Your task to perform on an android device: Open display settings Image 0: 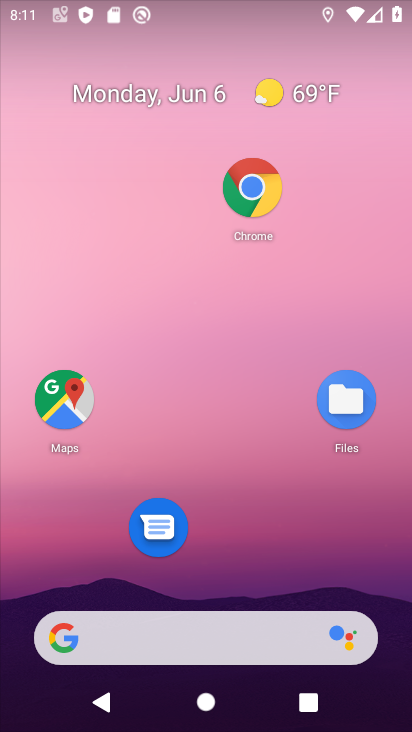
Step 0: drag from (228, 558) to (234, 84)
Your task to perform on an android device: Open display settings Image 1: 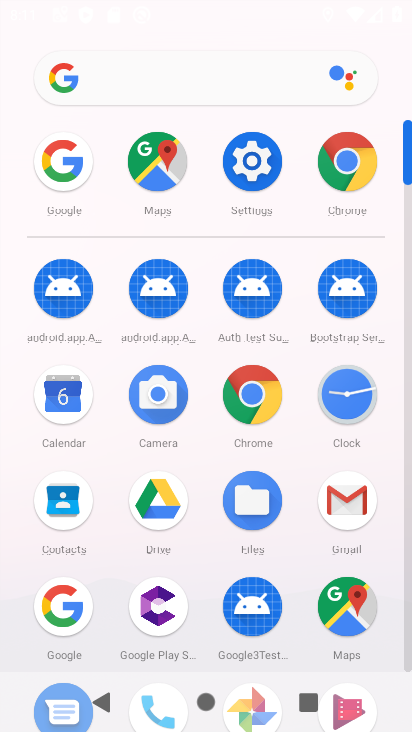
Step 1: click (247, 173)
Your task to perform on an android device: Open display settings Image 2: 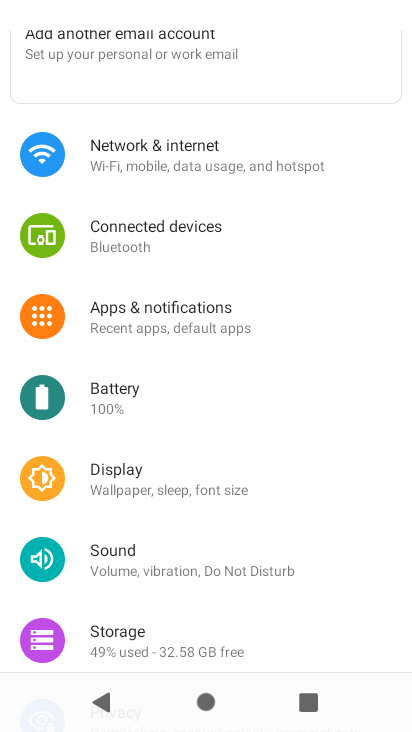
Step 2: click (129, 487)
Your task to perform on an android device: Open display settings Image 3: 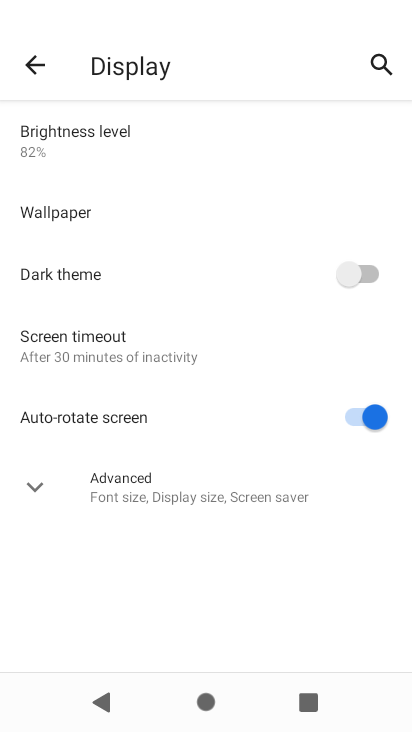
Step 3: task complete